Your task to perform on an android device: turn on location history Image 0: 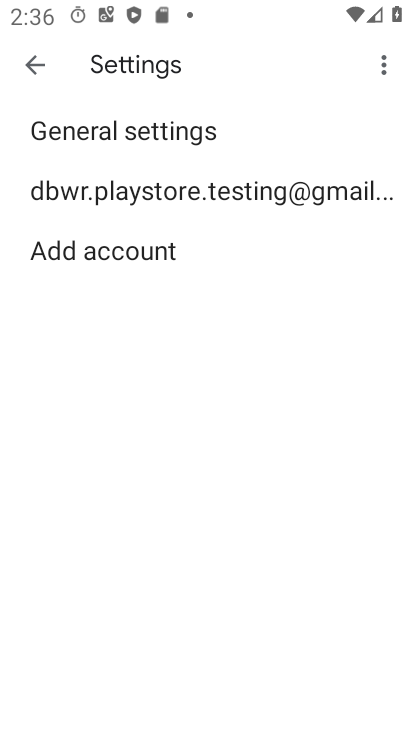
Step 0: press back button
Your task to perform on an android device: turn on location history Image 1: 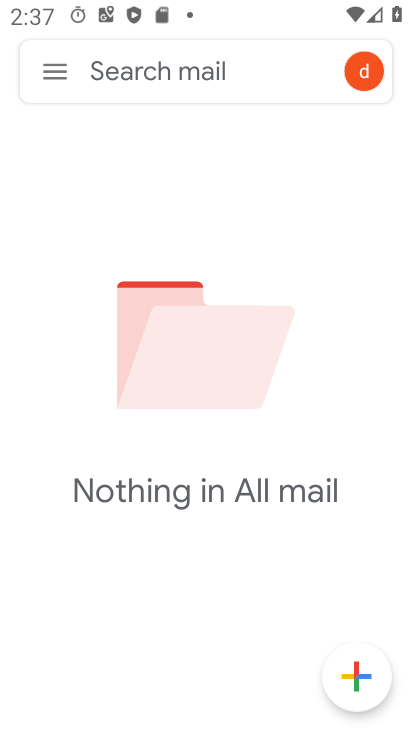
Step 1: press home button
Your task to perform on an android device: turn on location history Image 2: 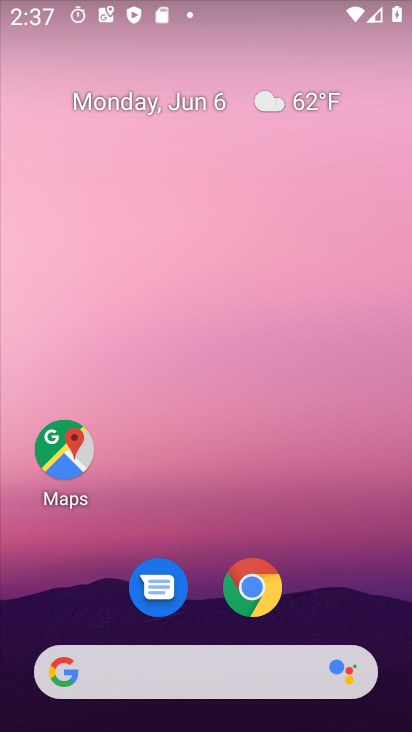
Step 2: drag from (316, 566) to (245, 67)
Your task to perform on an android device: turn on location history Image 3: 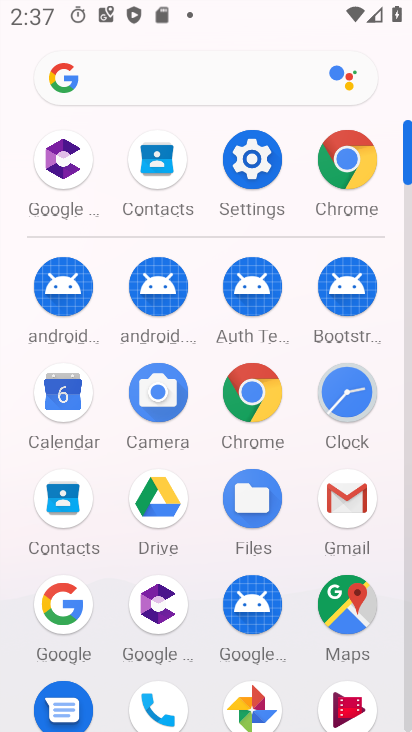
Step 3: click (253, 154)
Your task to perform on an android device: turn on location history Image 4: 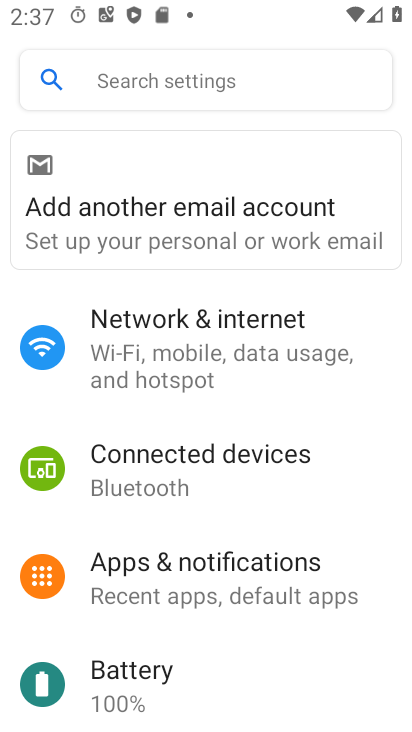
Step 4: drag from (248, 355) to (266, 193)
Your task to perform on an android device: turn on location history Image 5: 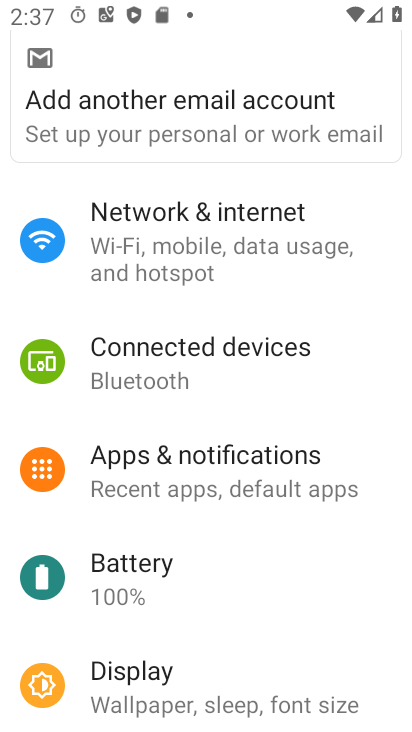
Step 5: drag from (221, 366) to (242, 167)
Your task to perform on an android device: turn on location history Image 6: 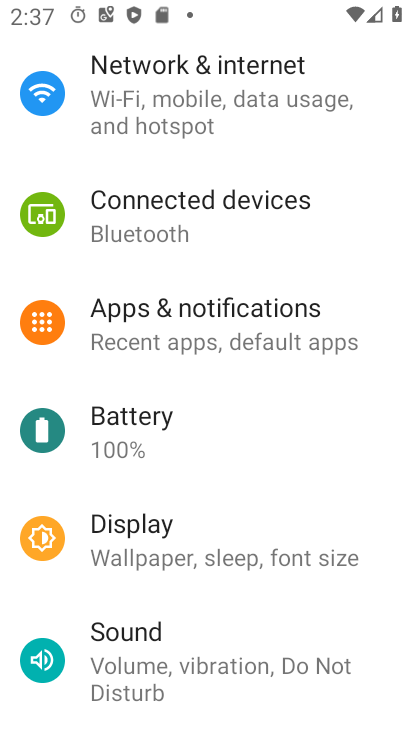
Step 6: drag from (191, 562) to (255, 176)
Your task to perform on an android device: turn on location history Image 7: 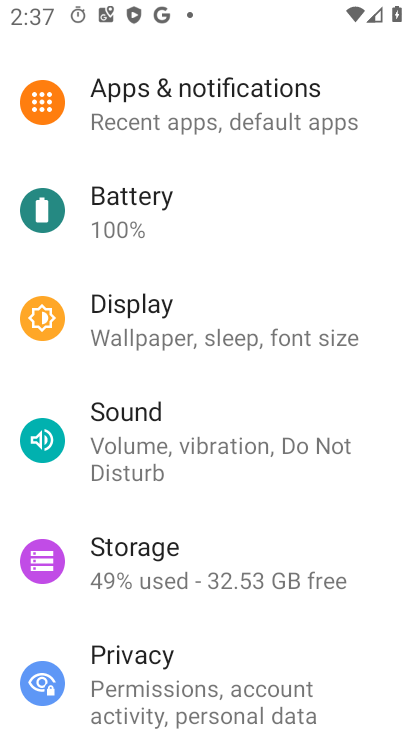
Step 7: drag from (215, 616) to (241, 236)
Your task to perform on an android device: turn on location history Image 8: 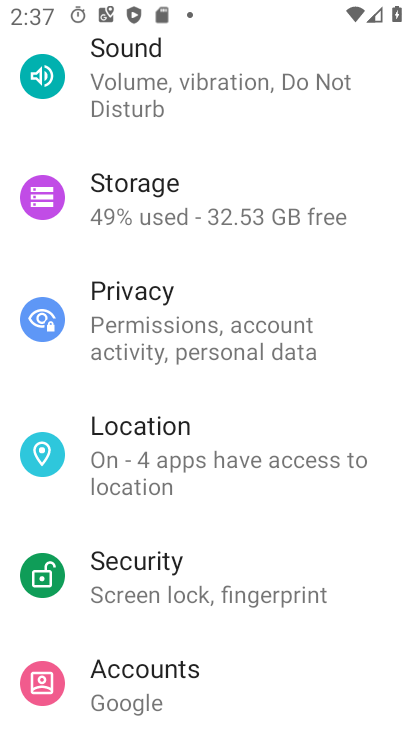
Step 8: click (214, 481)
Your task to perform on an android device: turn on location history Image 9: 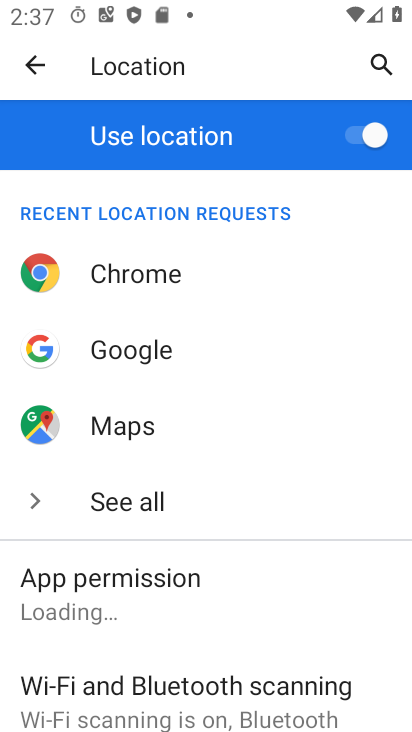
Step 9: drag from (246, 616) to (245, 171)
Your task to perform on an android device: turn on location history Image 10: 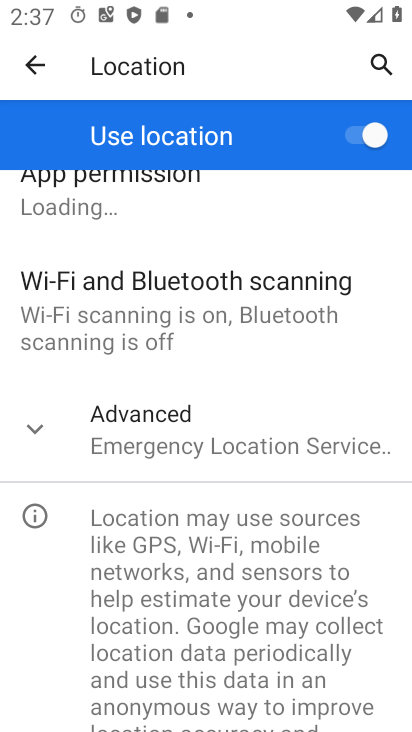
Step 10: click (46, 409)
Your task to perform on an android device: turn on location history Image 11: 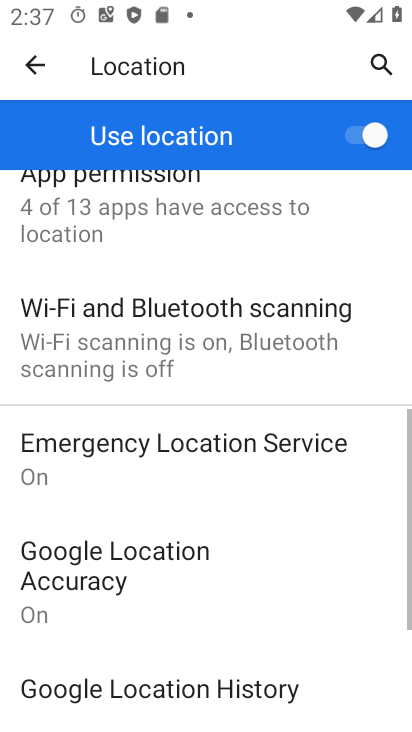
Step 11: click (270, 691)
Your task to perform on an android device: turn on location history Image 12: 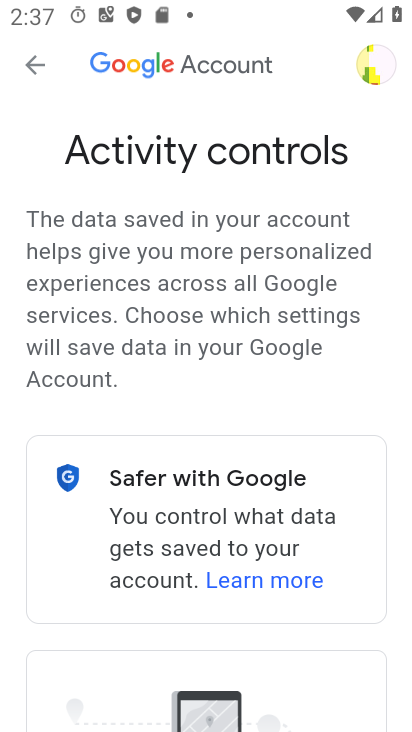
Step 12: drag from (199, 553) to (217, 142)
Your task to perform on an android device: turn on location history Image 13: 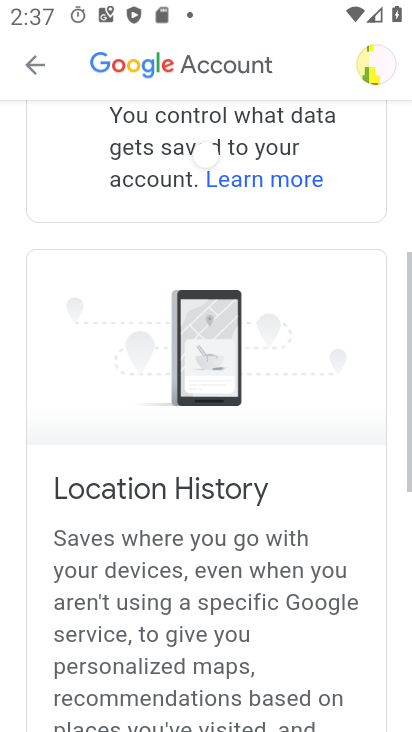
Step 13: drag from (211, 526) to (217, 177)
Your task to perform on an android device: turn on location history Image 14: 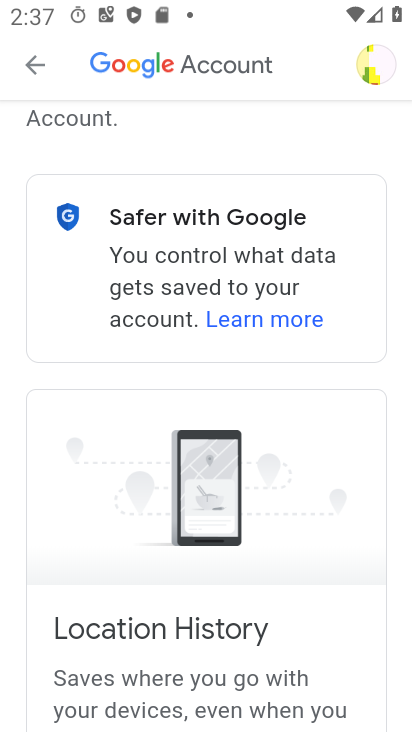
Step 14: drag from (115, 629) to (143, 171)
Your task to perform on an android device: turn on location history Image 15: 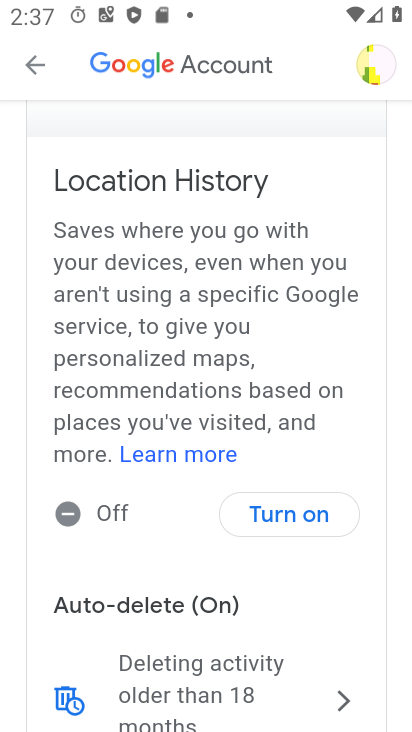
Step 15: click (312, 525)
Your task to perform on an android device: turn on location history Image 16: 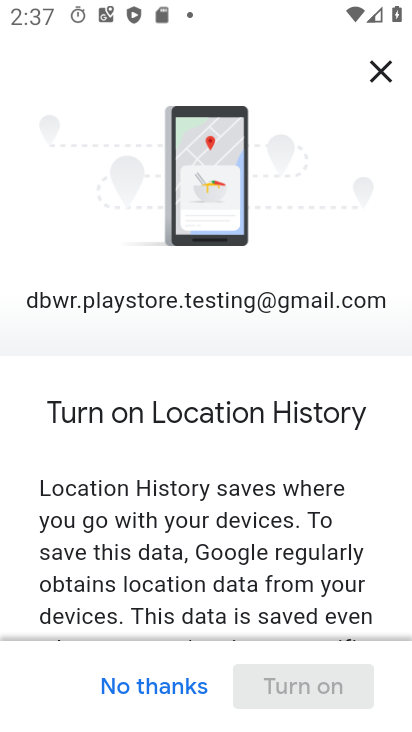
Step 16: drag from (243, 499) to (208, 170)
Your task to perform on an android device: turn on location history Image 17: 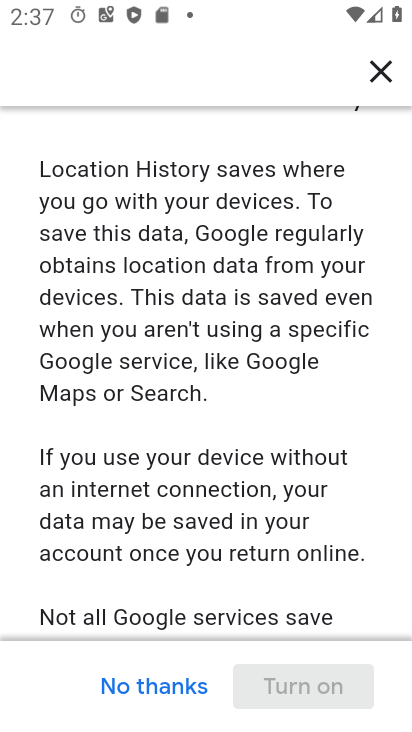
Step 17: drag from (198, 553) to (233, 164)
Your task to perform on an android device: turn on location history Image 18: 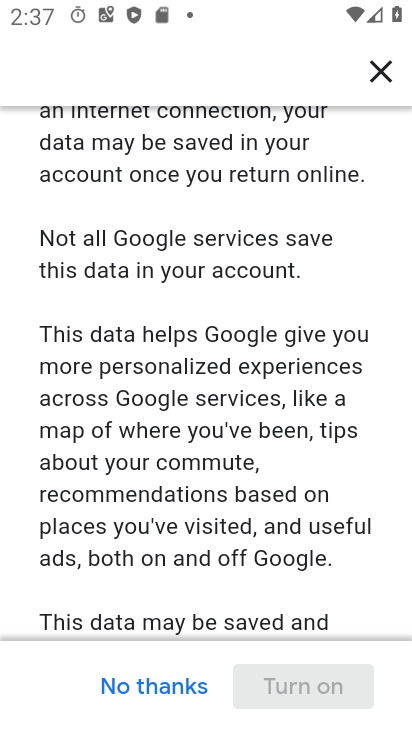
Step 18: drag from (271, 493) to (297, 145)
Your task to perform on an android device: turn on location history Image 19: 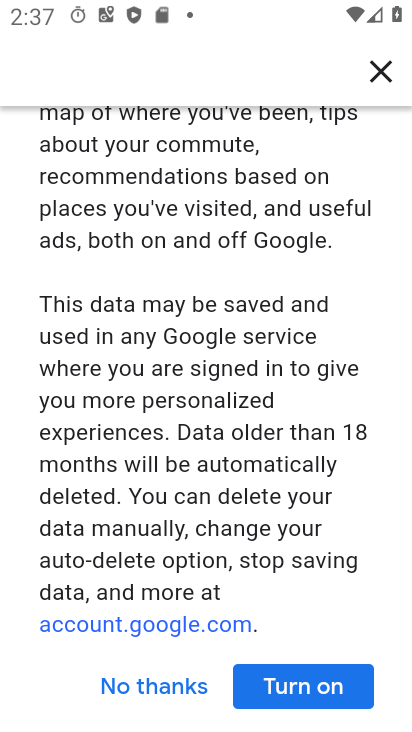
Step 19: click (274, 698)
Your task to perform on an android device: turn on location history Image 20: 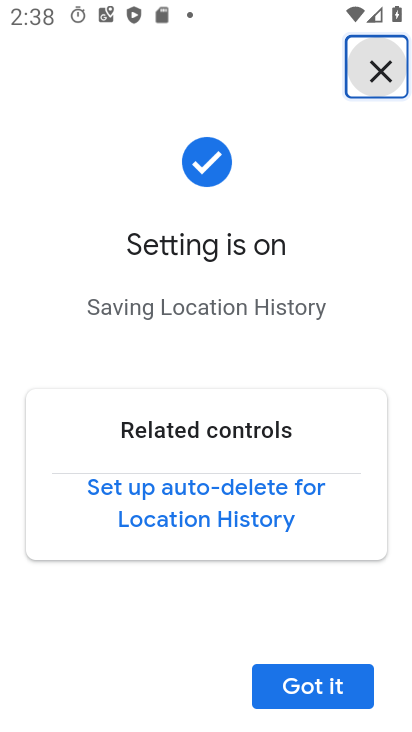
Step 20: task complete